Your task to perform on an android device: check android version Image 0: 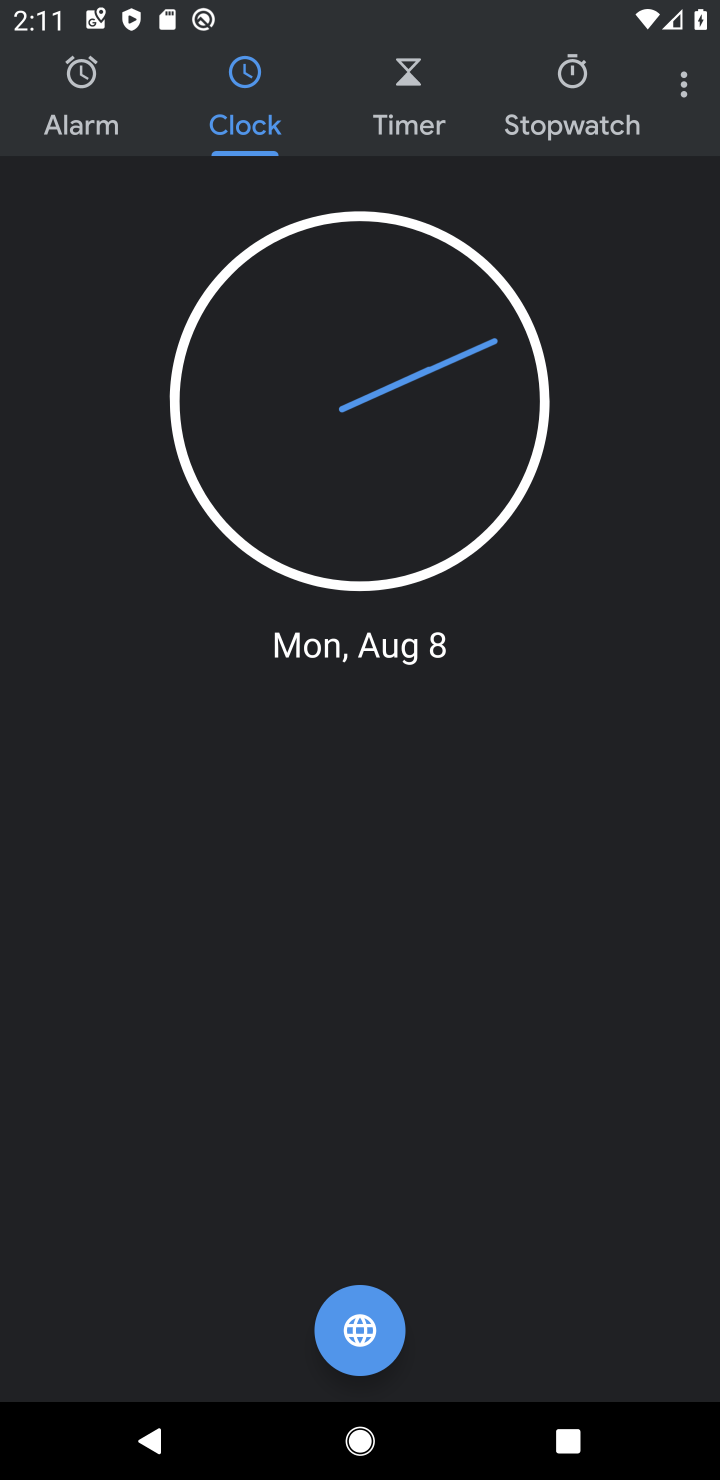
Step 0: press home button
Your task to perform on an android device: check android version Image 1: 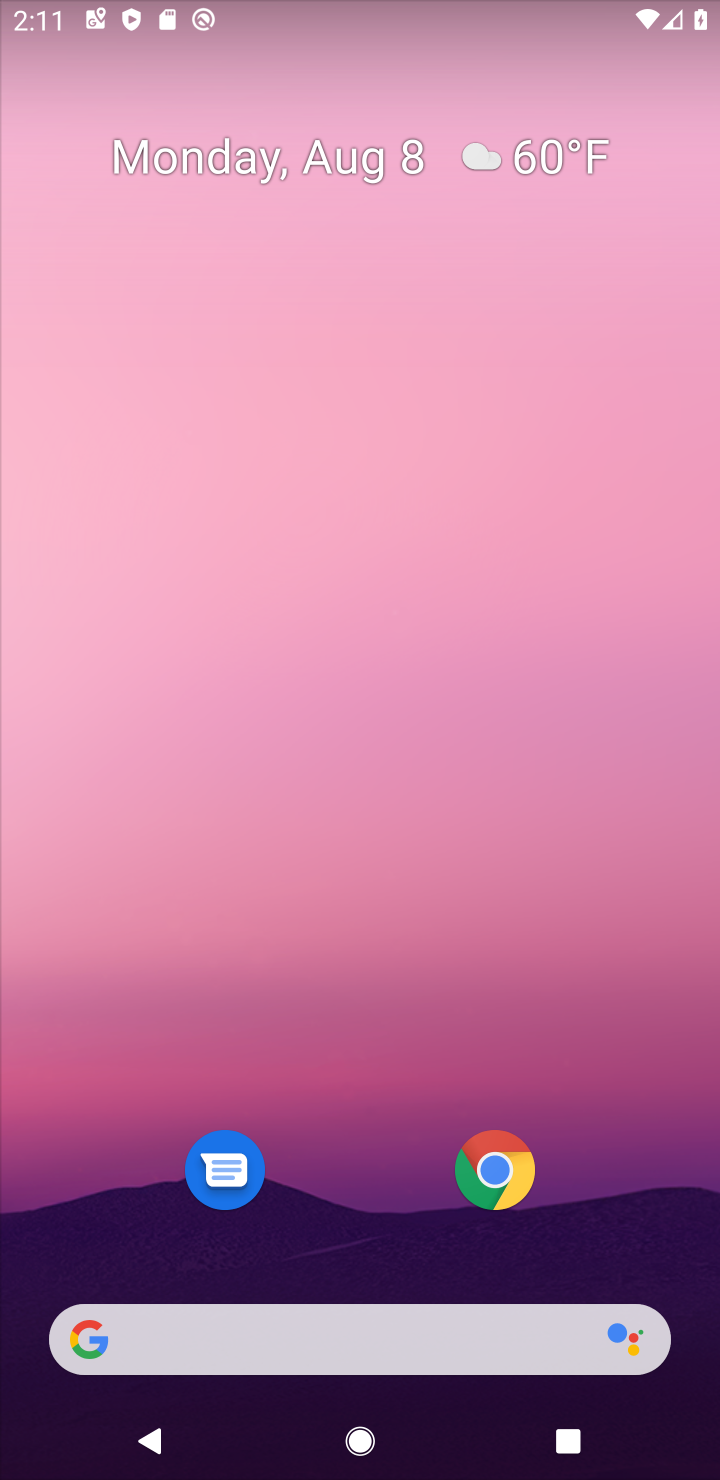
Step 1: drag from (328, 1200) to (335, 371)
Your task to perform on an android device: check android version Image 2: 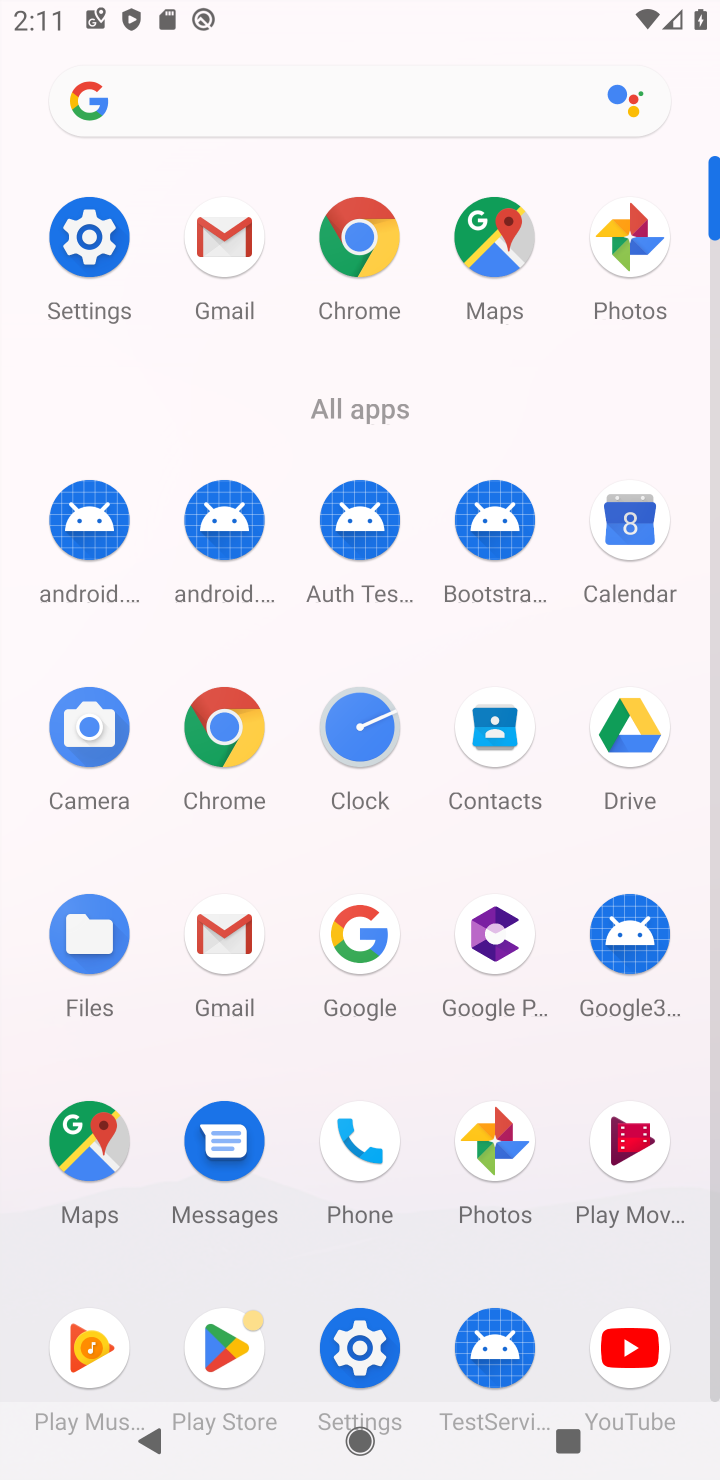
Step 2: click (84, 252)
Your task to perform on an android device: check android version Image 3: 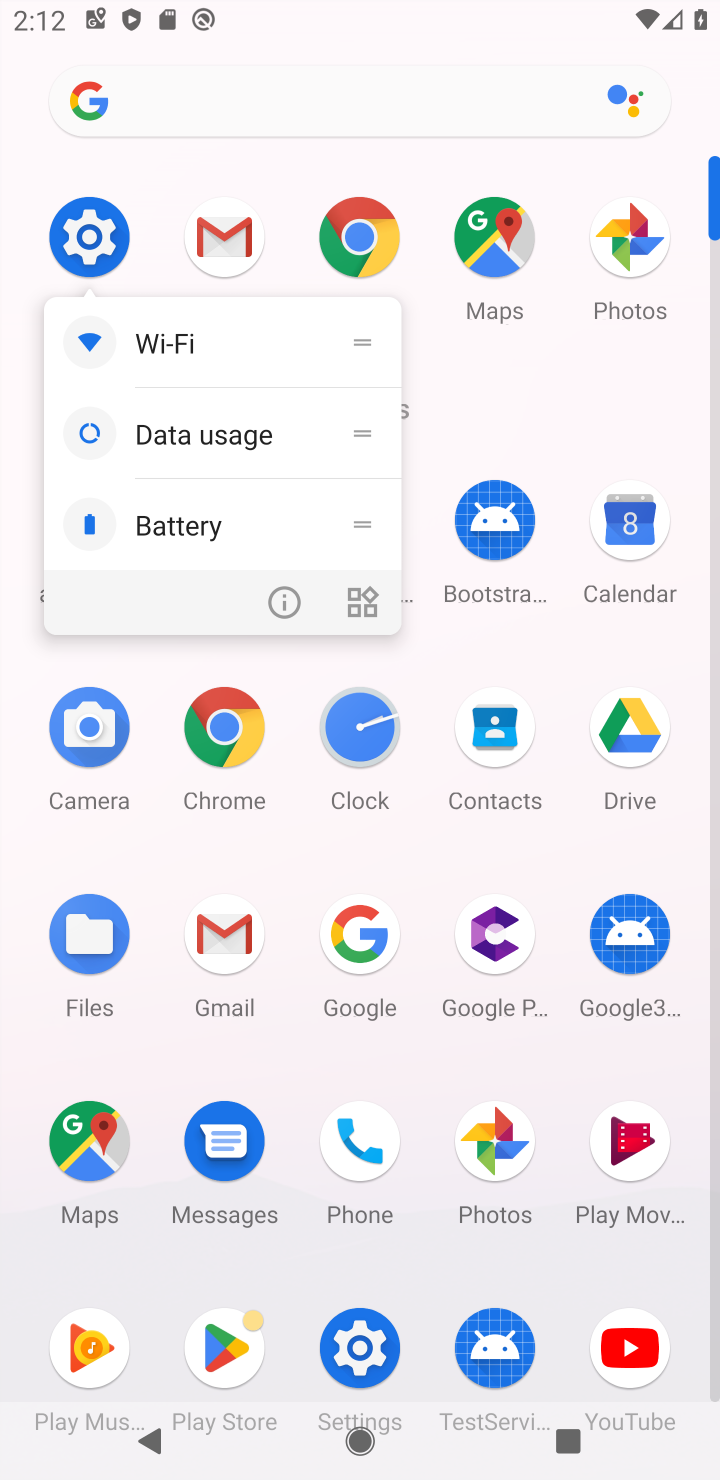
Step 3: click (84, 252)
Your task to perform on an android device: check android version Image 4: 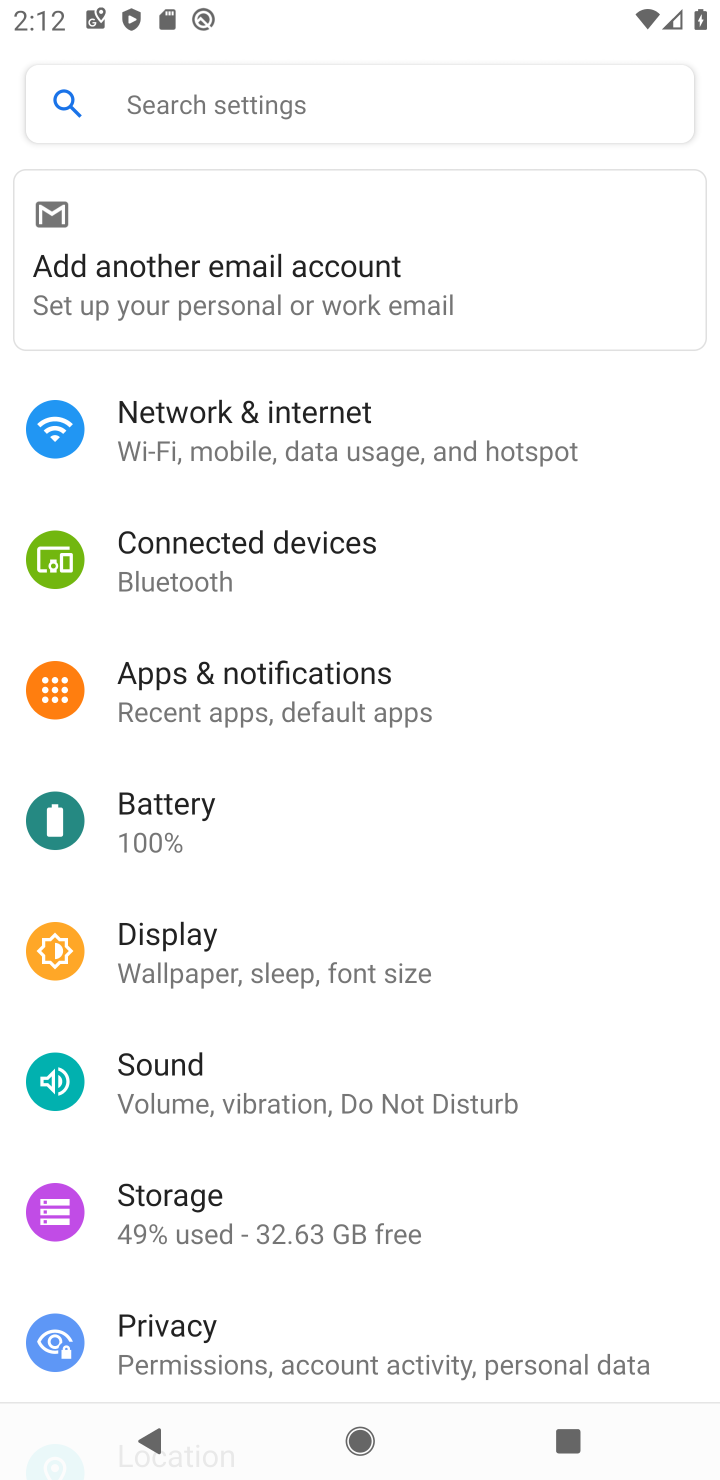
Step 4: drag from (341, 1201) to (308, 332)
Your task to perform on an android device: check android version Image 5: 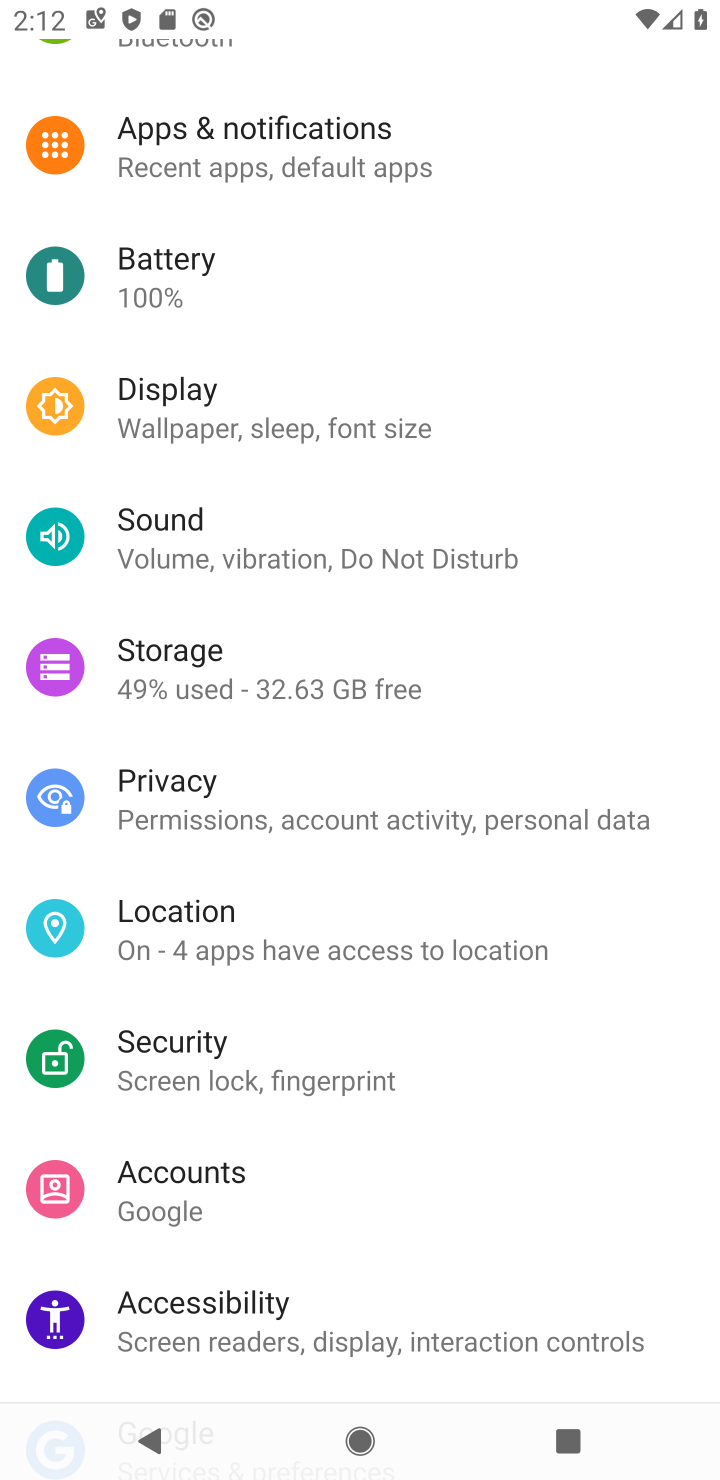
Step 5: drag from (275, 1126) to (296, 522)
Your task to perform on an android device: check android version Image 6: 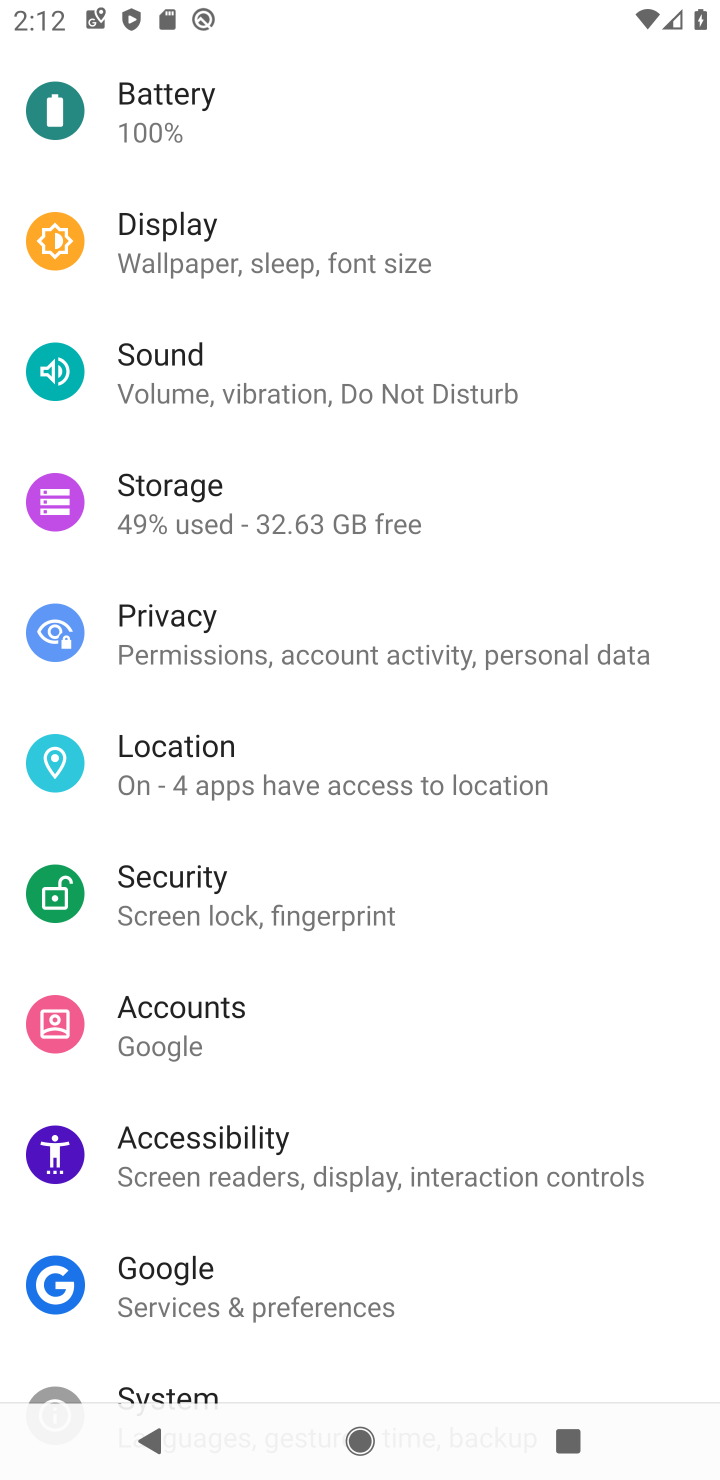
Step 6: drag from (346, 1137) to (352, 538)
Your task to perform on an android device: check android version Image 7: 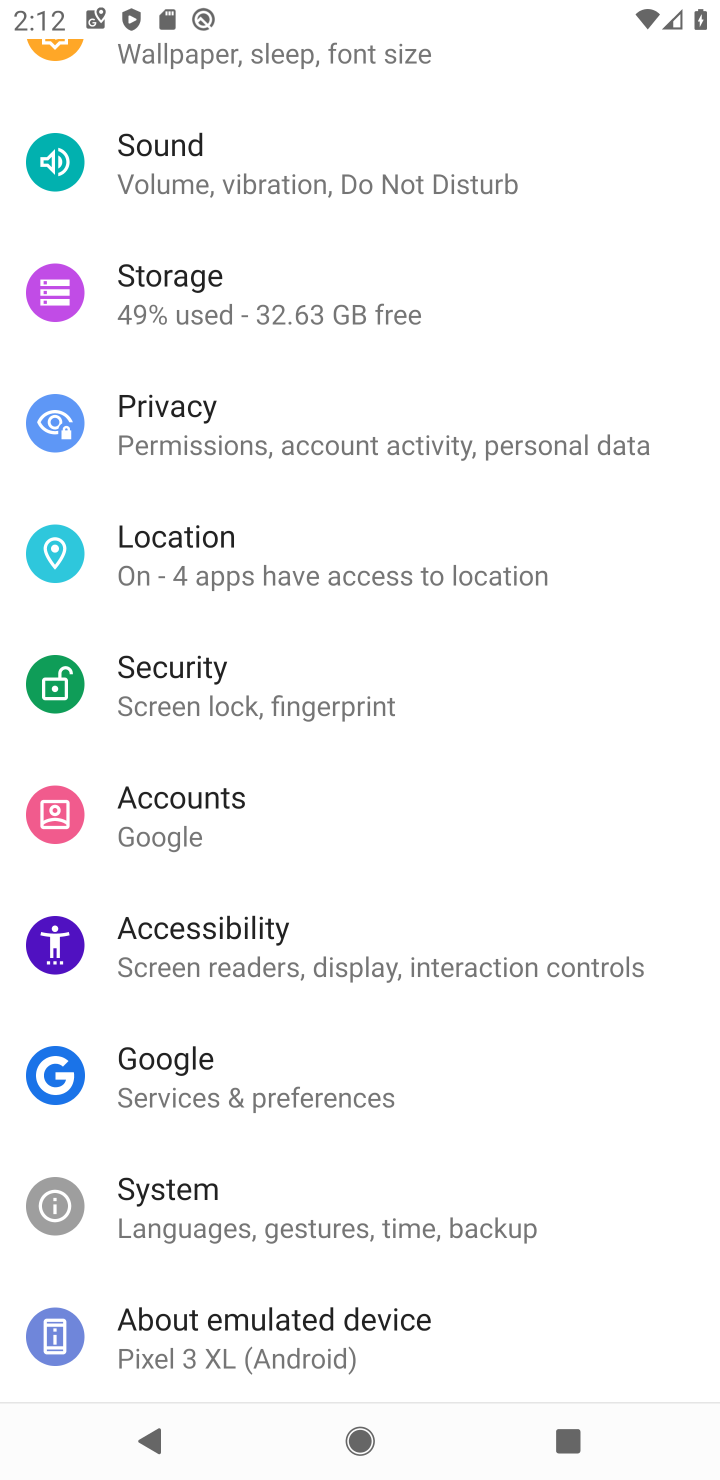
Step 7: drag from (359, 1132) to (359, 585)
Your task to perform on an android device: check android version Image 8: 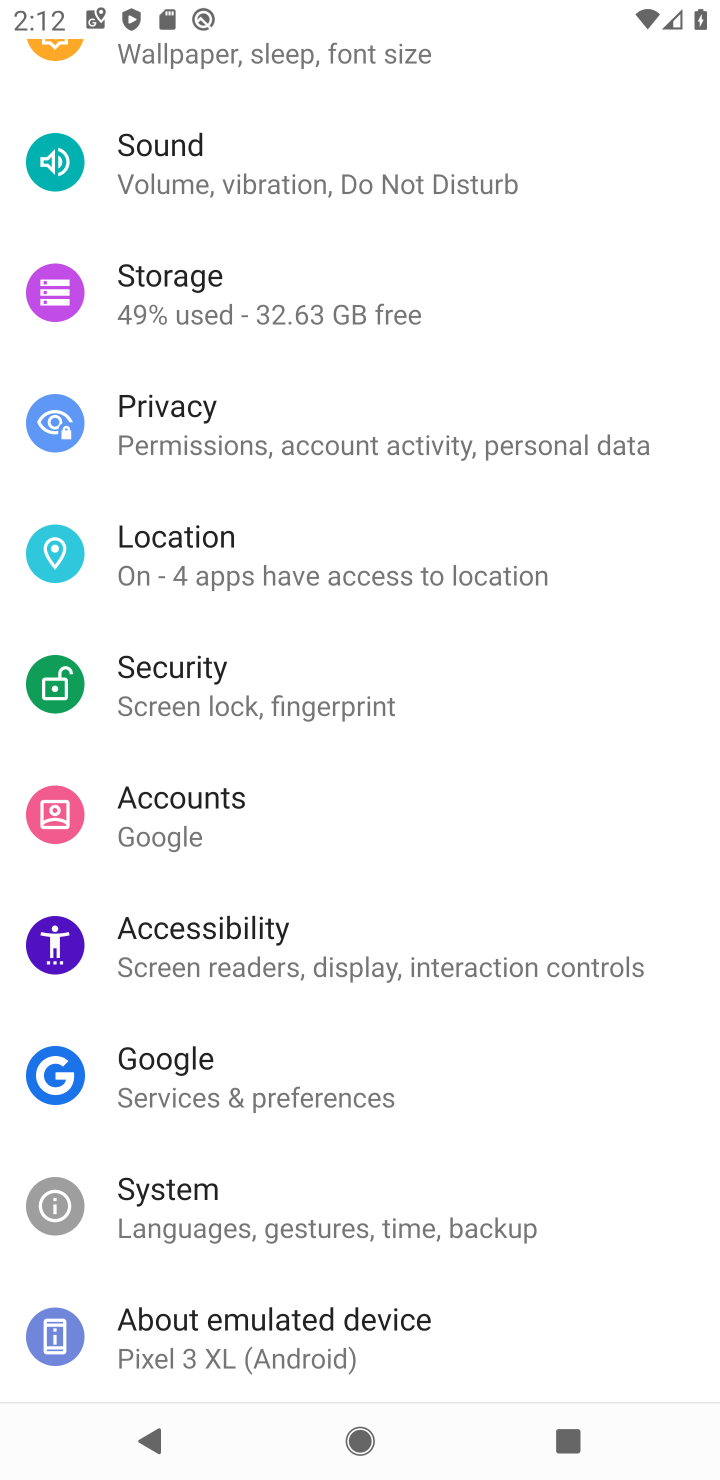
Step 8: drag from (321, 1265) to (354, 645)
Your task to perform on an android device: check android version Image 9: 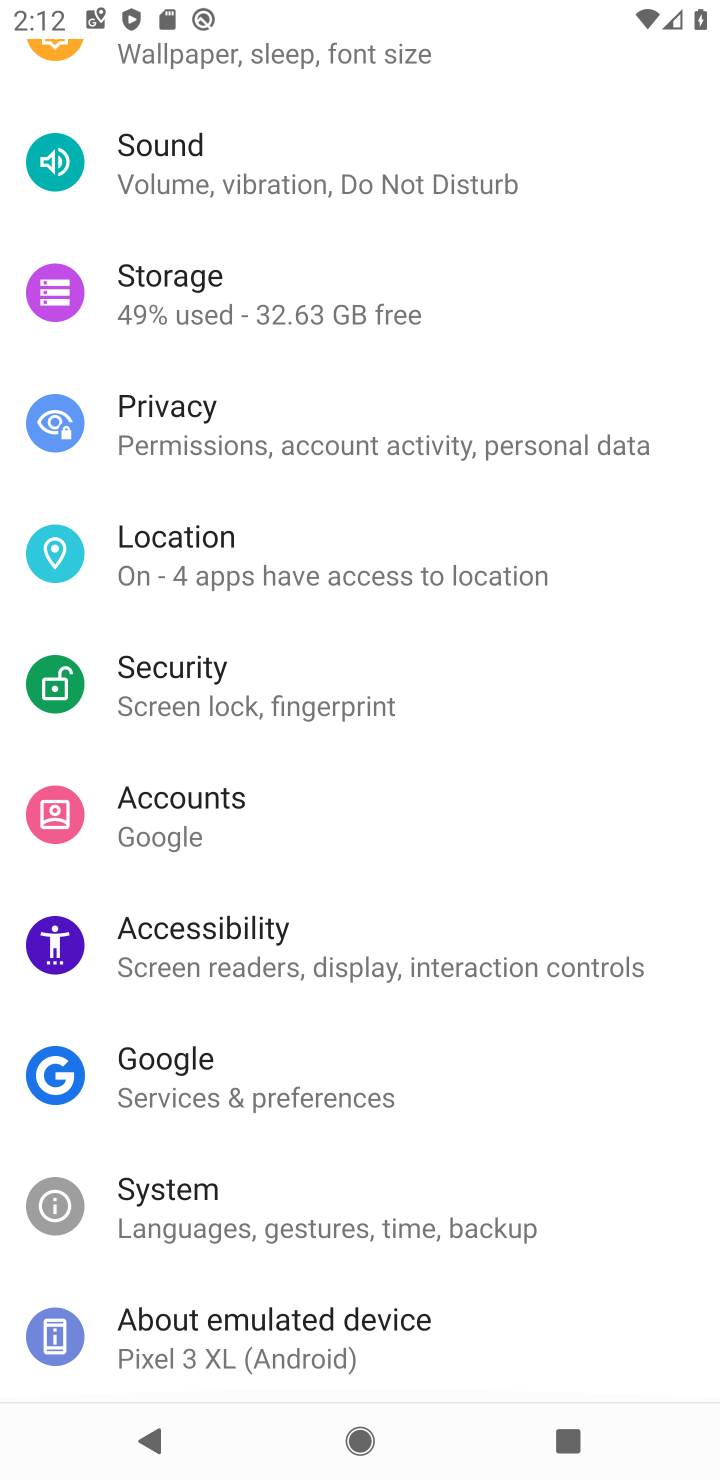
Step 9: click (354, 1316)
Your task to perform on an android device: check android version Image 10: 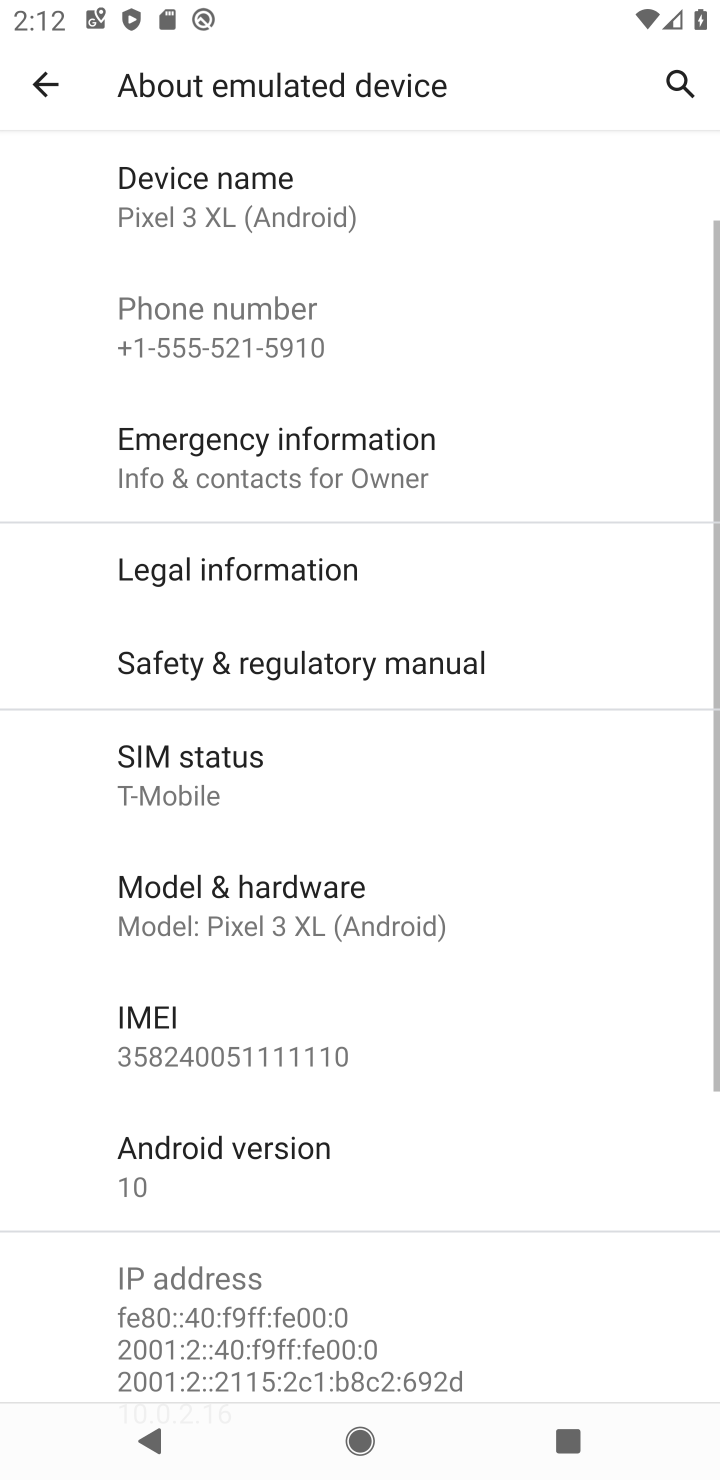
Step 10: click (270, 1177)
Your task to perform on an android device: check android version Image 11: 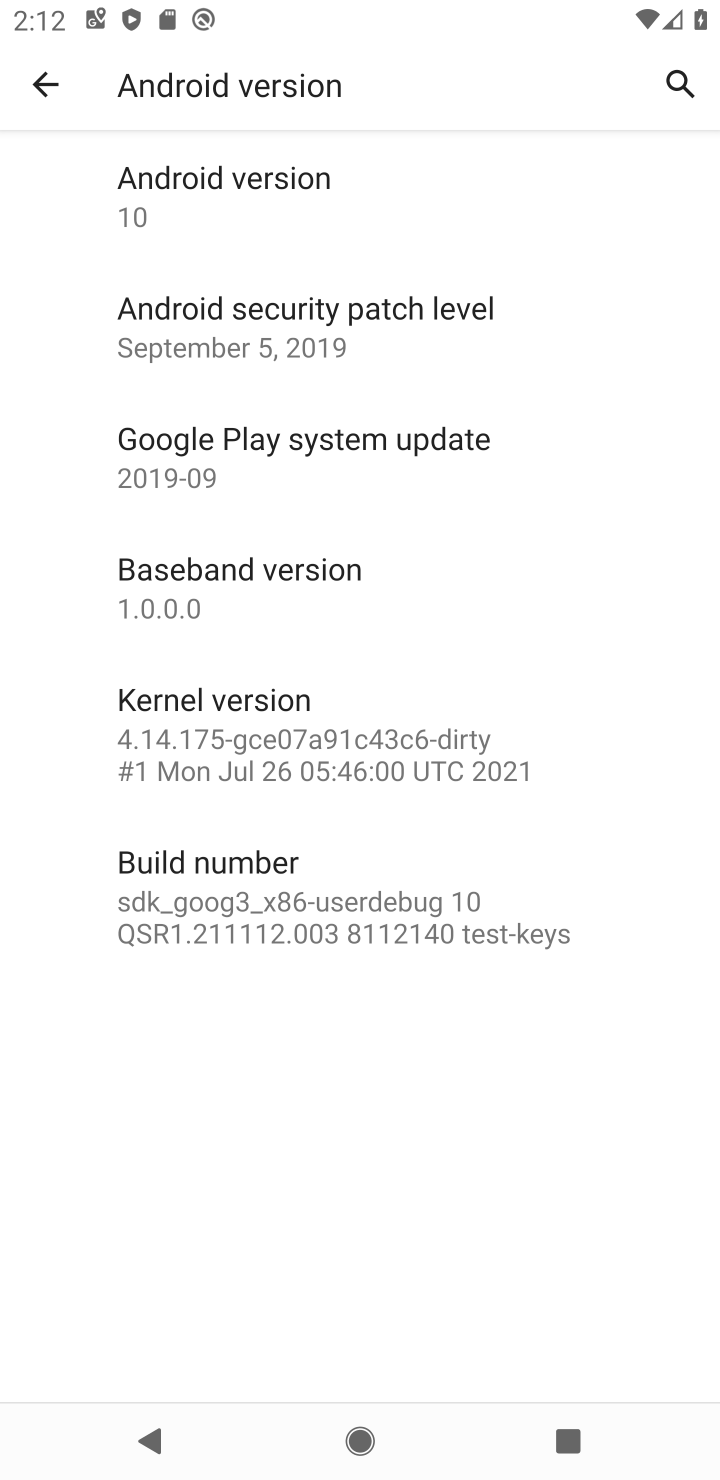
Step 11: click (239, 215)
Your task to perform on an android device: check android version Image 12: 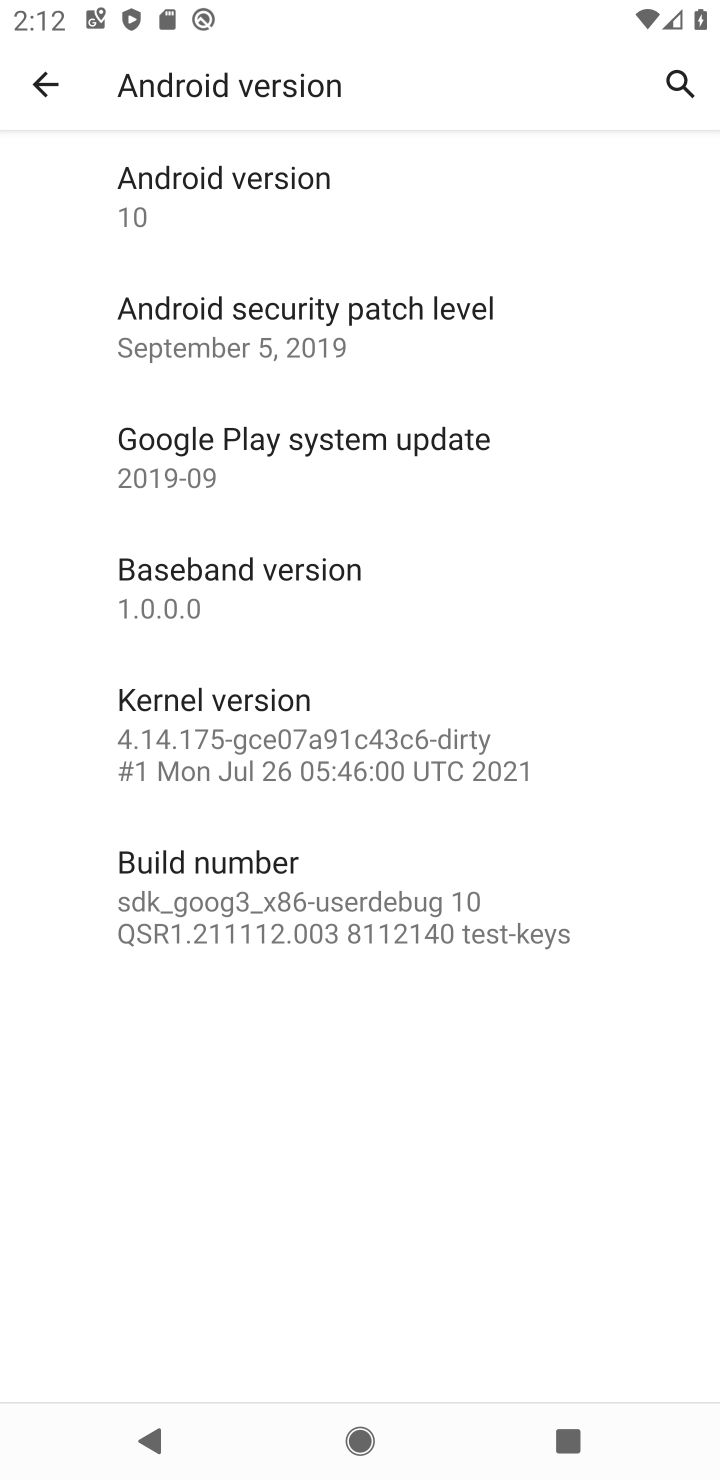
Step 12: click (121, 212)
Your task to perform on an android device: check android version Image 13: 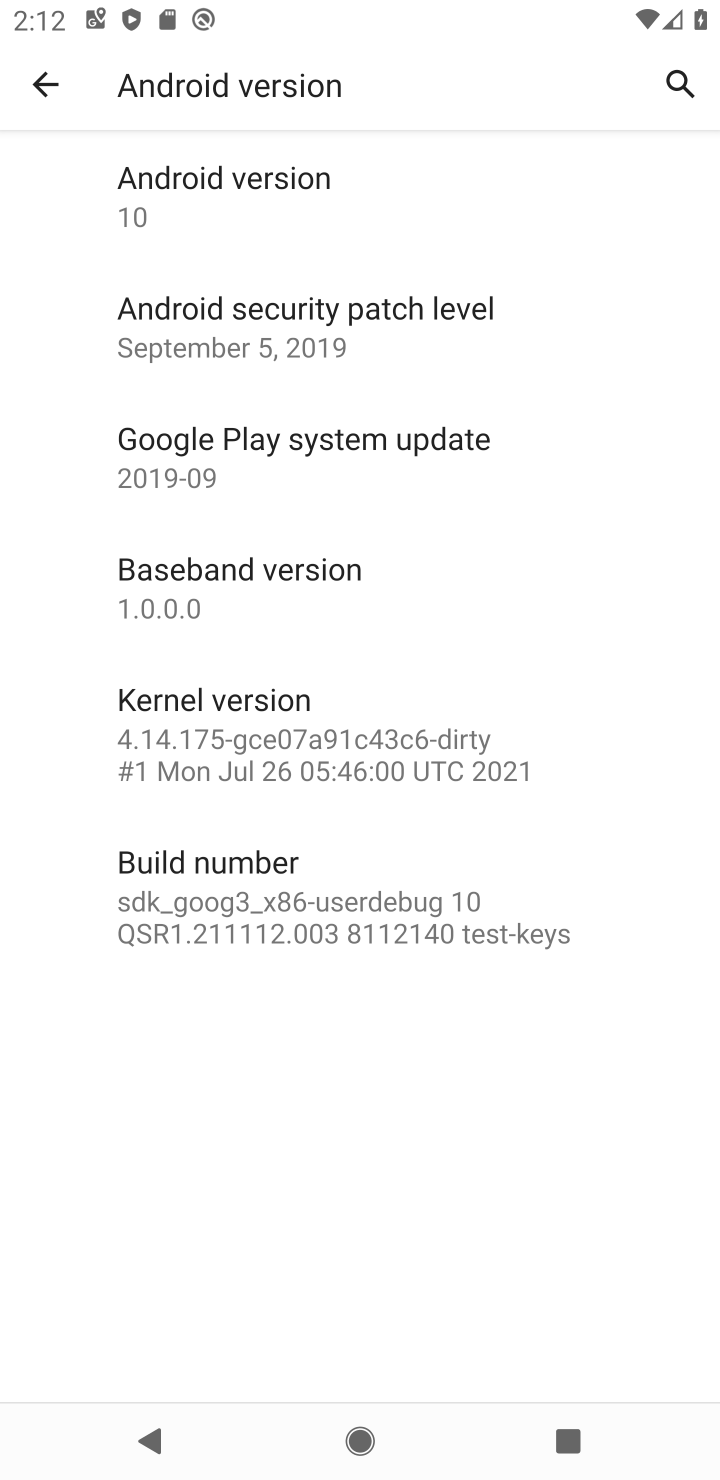
Step 13: task complete